Your task to perform on an android device: Open Youtube and go to the subscriptions tab Image 0: 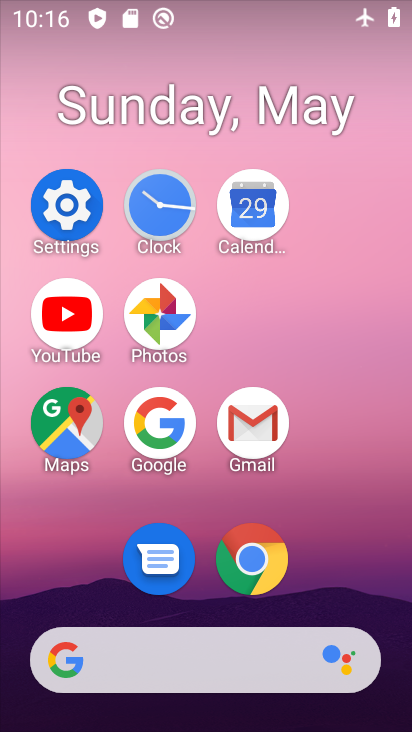
Step 0: click (63, 332)
Your task to perform on an android device: Open Youtube and go to the subscriptions tab Image 1: 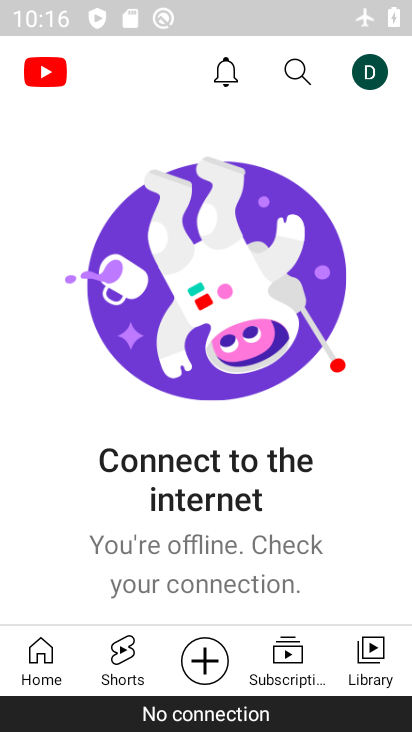
Step 1: drag from (286, 678) to (237, 678)
Your task to perform on an android device: Open Youtube and go to the subscriptions tab Image 2: 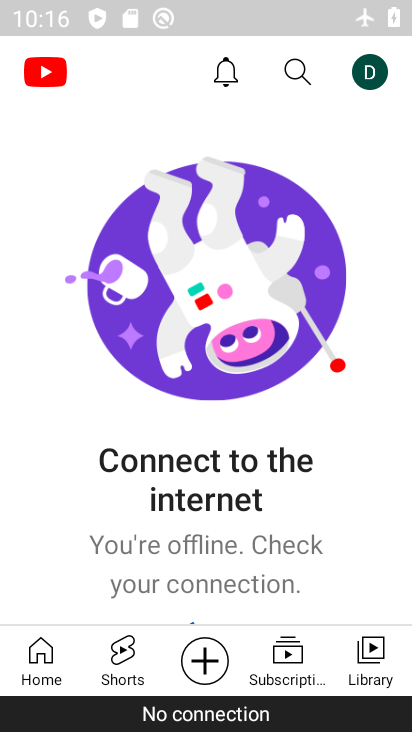
Step 2: click (302, 646)
Your task to perform on an android device: Open Youtube and go to the subscriptions tab Image 3: 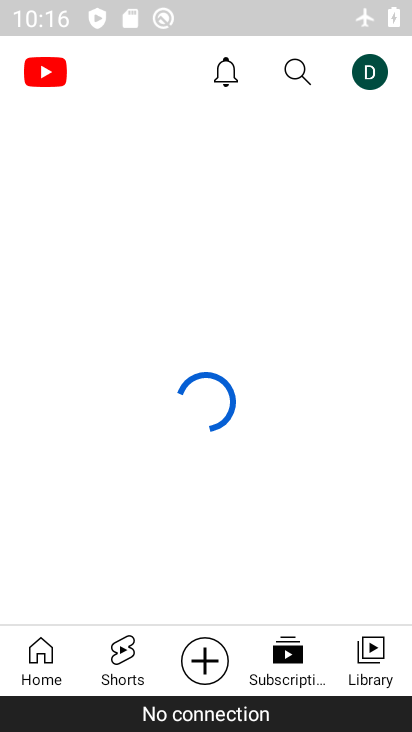
Step 3: task complete